Your task to perform on an android device: turn off translation in the chrome app Image 0: 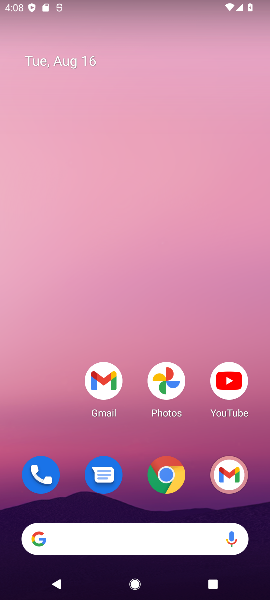
Step 0: drag from (74, 500) to (17, 8)
Your task to perform on an android device: turn off translation in the chrome app Image 1: 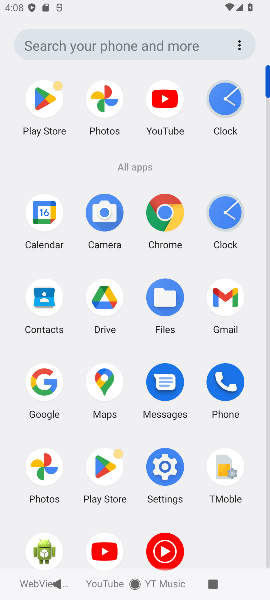
Step 1: click (176, 205)
Your task to perform on an android device: turn off translation in the chrome app Image 2: 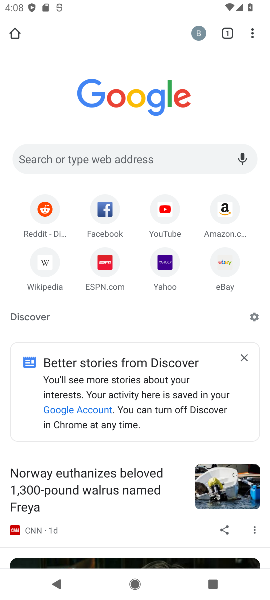
Step 2: click (251, 34)
Your task to perform on an android device: turn off translation in the chrome app Image 3: 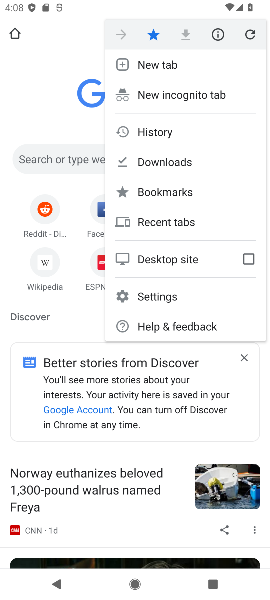
Step 3: click (159, 302)
Your task to perform on an android device: turn off translation in the chrome app Image 4: 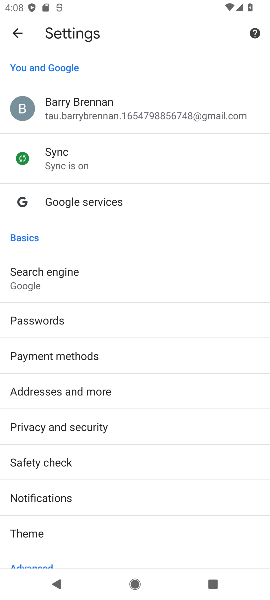
Step 4: drag from (73, 535) to (101, 171)
Your task to perform on an android device: turn off translation in the chrome app Image 5: 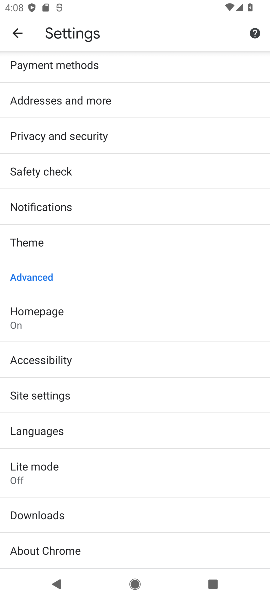
Step 5: click (96, 437)
Your task to perform on an android device: turn off translation in the chrome app Image 6: 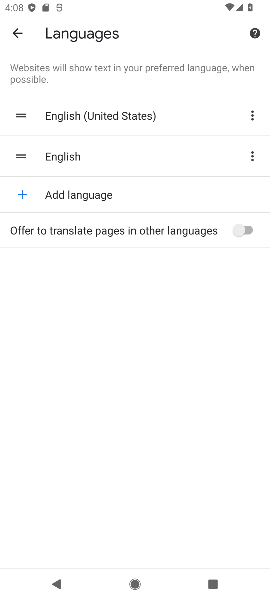
Step 6: task complete